Your task to perform on an android device: Search for seafood restaurants on Google Maps Image 0: 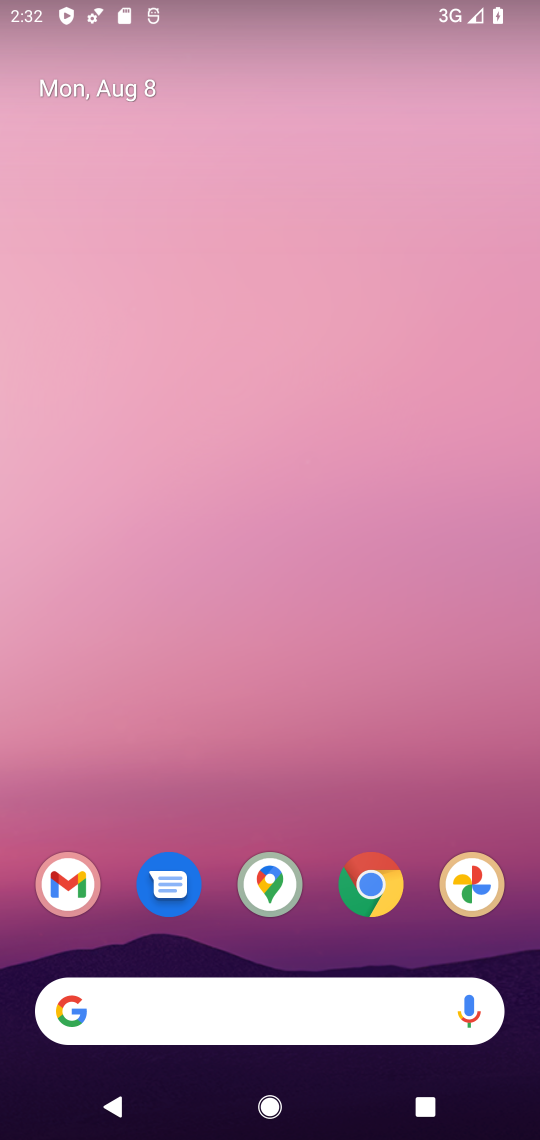
Step 0: click (271, 877)
Your task to perform on an android device: Search for seafood restaurants on Google Maps Image 1: 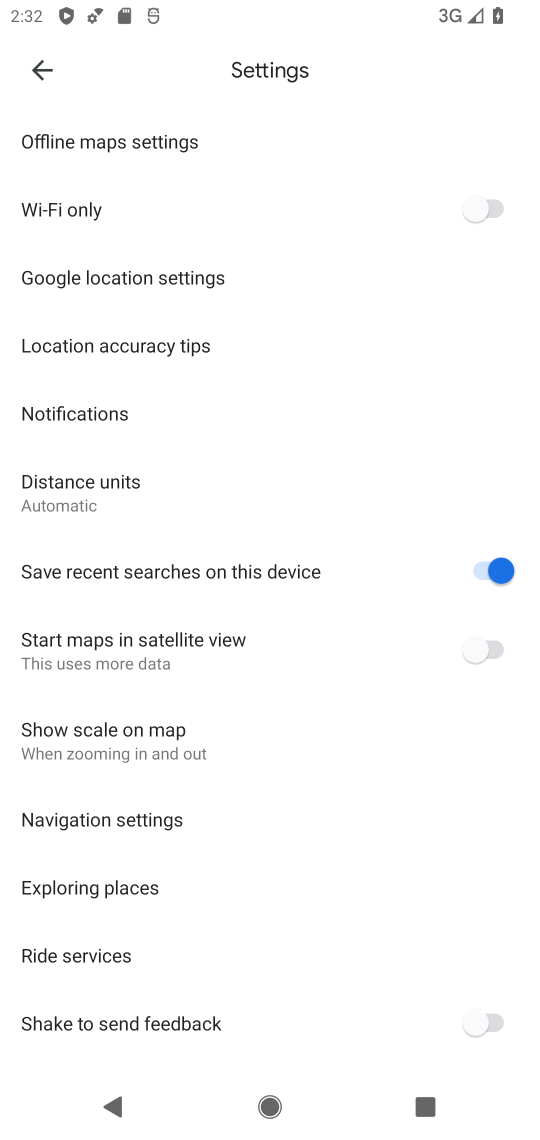
Step 1: click (44, 72)
Your task to perform on an android device: Search for seafood restaurants on Google Maps Image 2: 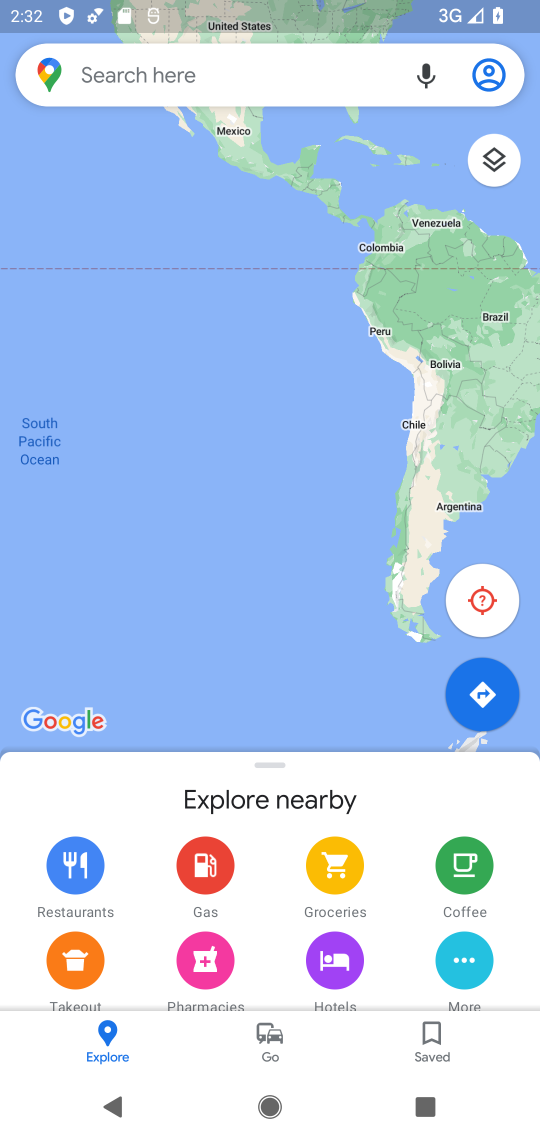
Step 2: click (132, 68)
Your task to perform on an android device: Search for seafood restaurants on Google Maps Image 3: 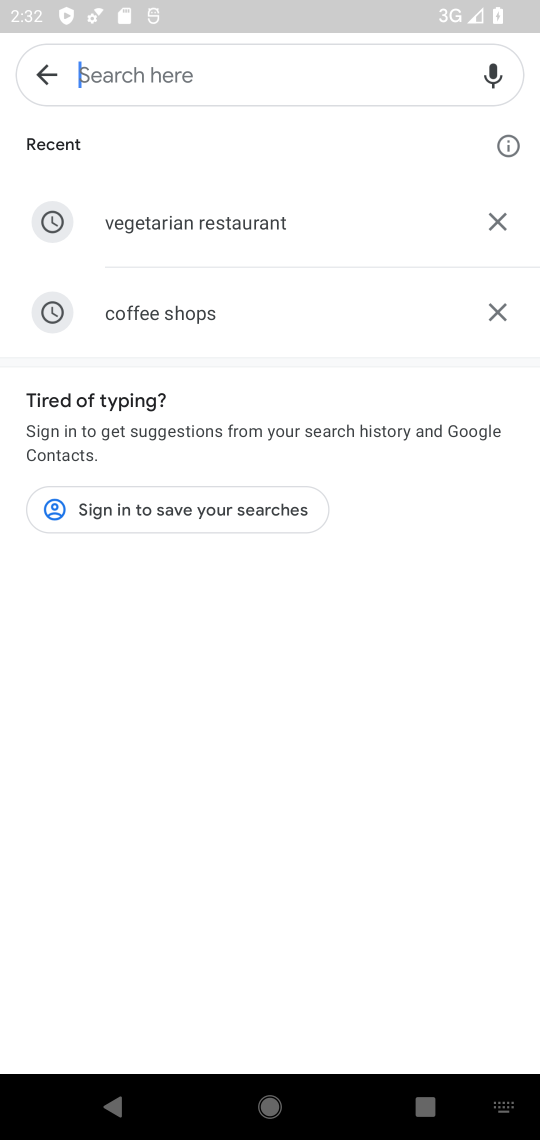
Step 3: type "seafood"
Your task to perform on an android device: Search for seafood restaurants on Google Maps Image 4: 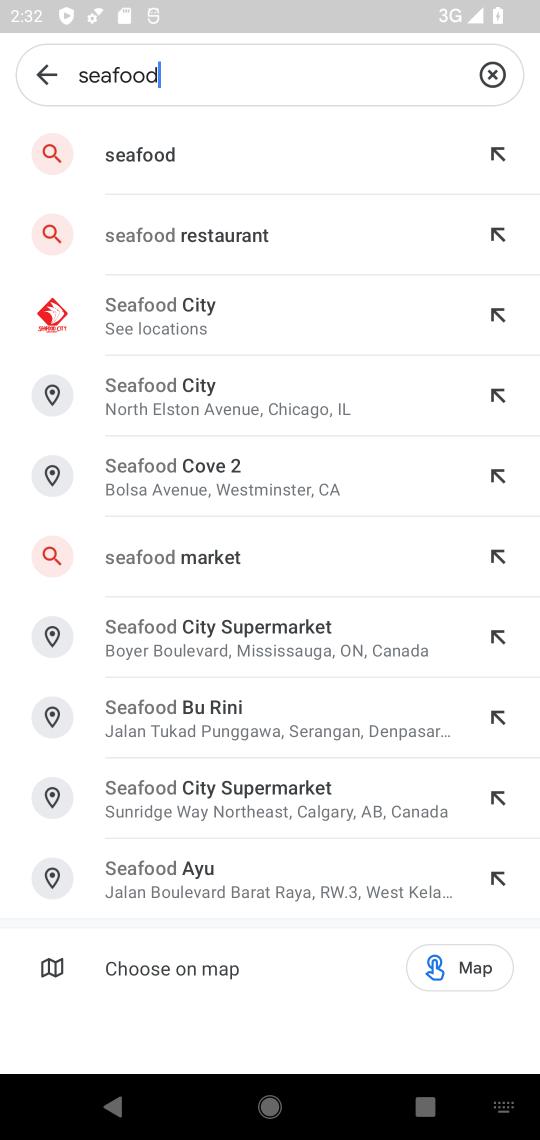
Step 4: click (171, 227)
Your task to perform on an android device: Search for seafood restaurants on Google Maps Image 5: 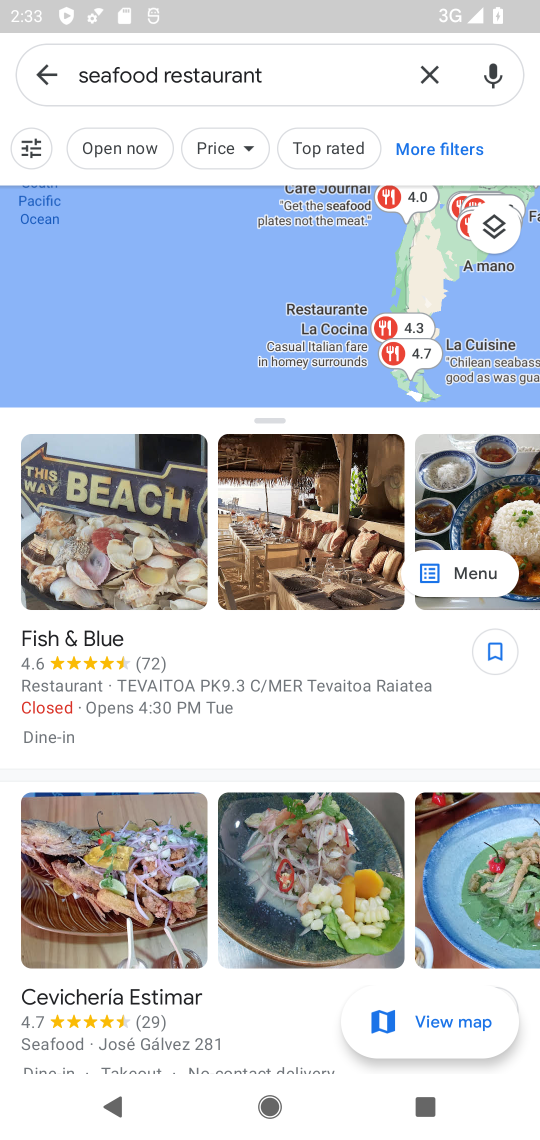
Step 5: task complete